Your task to perform on an android device: Open Google Maps and go to "Timeline" Image 0: 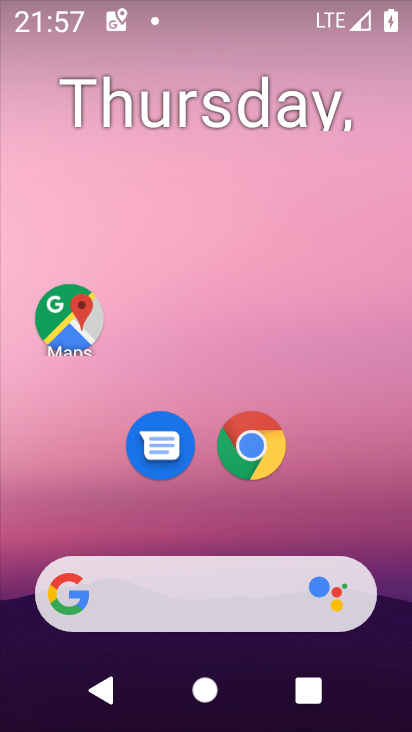
Step 0: drag from (193, 500) to (226, 161)
Your task to perform on an android device: Open Google Maps and go to "Timeline" Image 1: 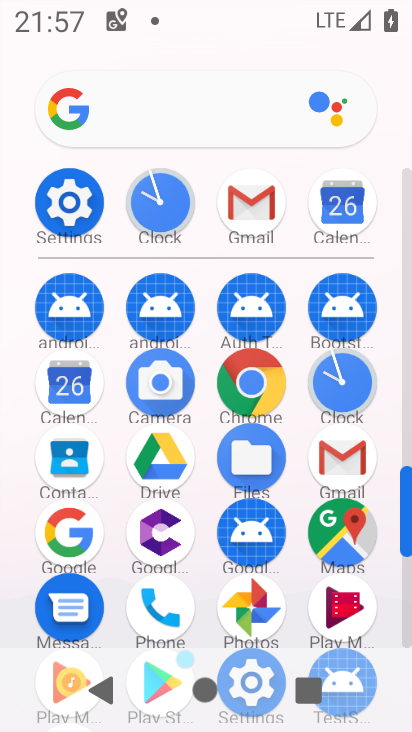
Step 1: drag from (205, 275) to (219, 78)
Your task to perform on an android device: Open Google Maps and go to "Timeline" Image 2: 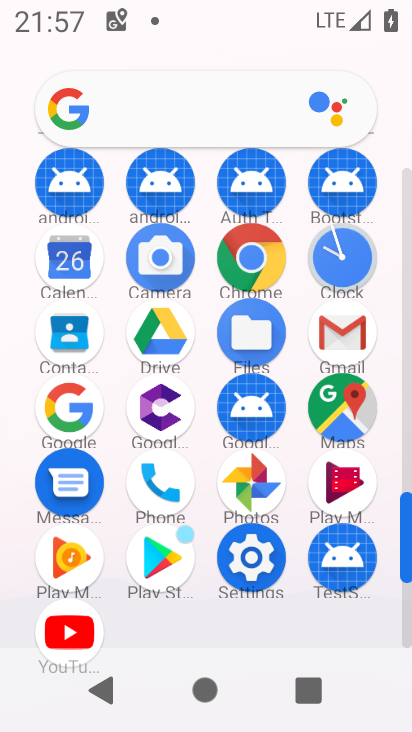
Step 2: click (339, 401)
Your task to perform on an android device: Open Google Maps and go to "Timeline" Image 3: 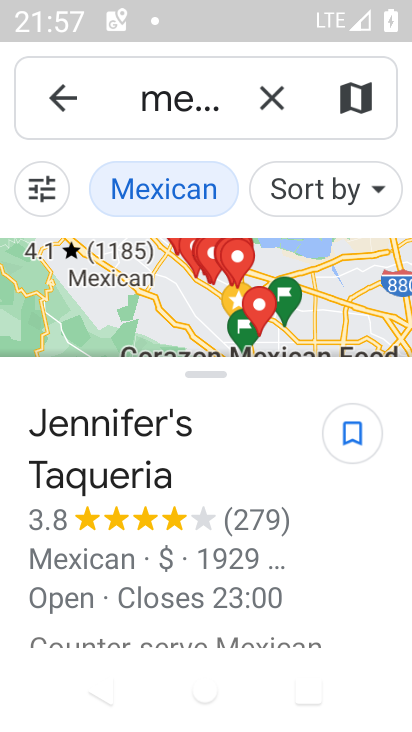
Step 3: press back button
Your task to perform on an android device: Open Google Maps and go to "Timeline" Image 4: 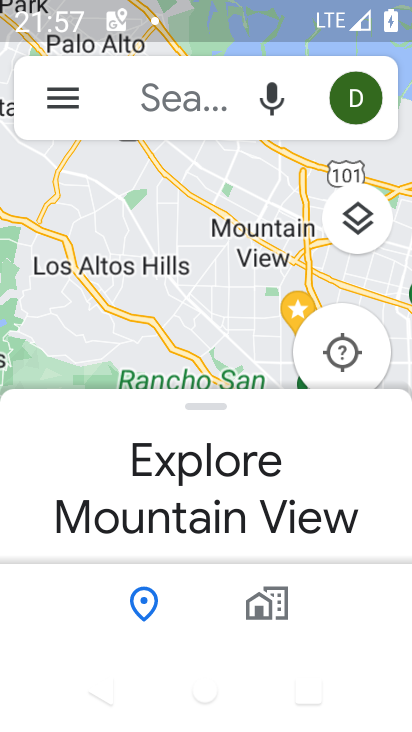
Step 4: click (38, 108)
Your task to perform on an android device: Open Google Maps and go to "Timeline" Image 5: 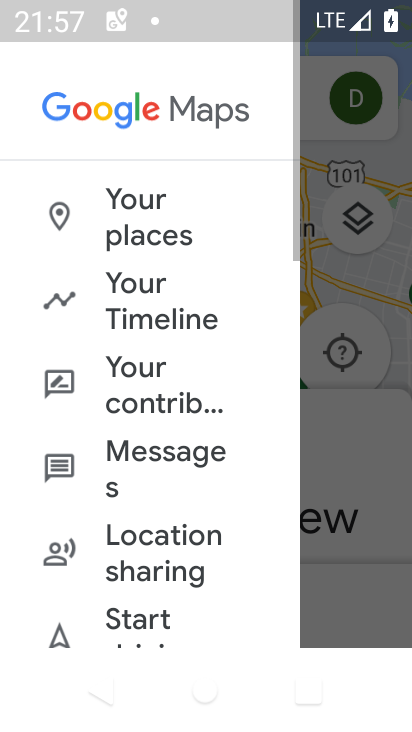
Step 5: drag from (132, 457) to (164, 489)
Your task to perform on an android device: Open Google Maps and go to "Timeline" Image 6: 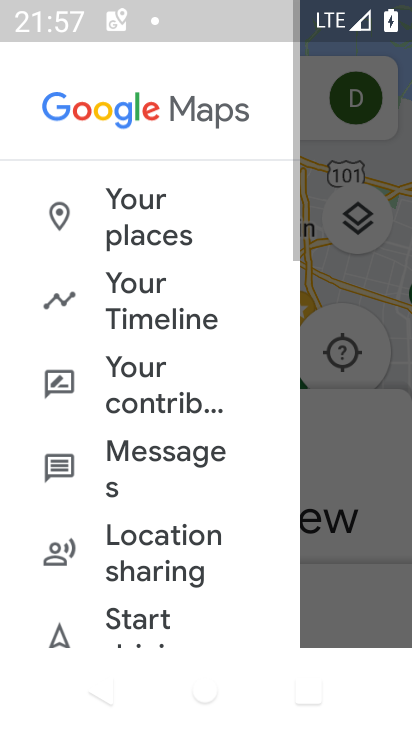
Step 6: click (149, 314)
Your task to perform on an android device: Open Google Maps and go to "Timeline" Image 7: 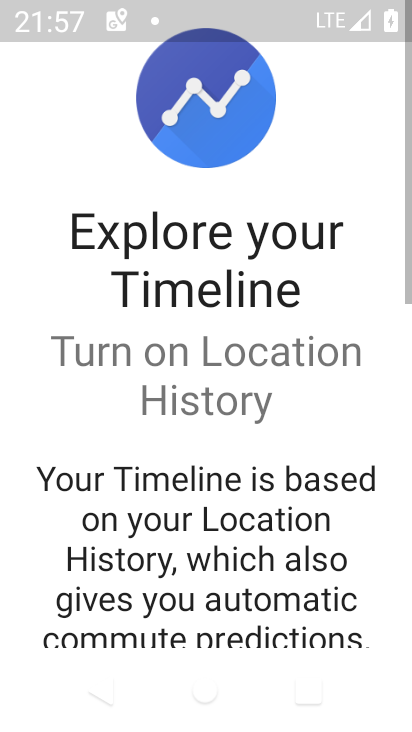
Step 7: drag from (203, 601) to (272, 160)
Your task to perform on an android device: Open Google Maps and go to "Timeline" Image 8: 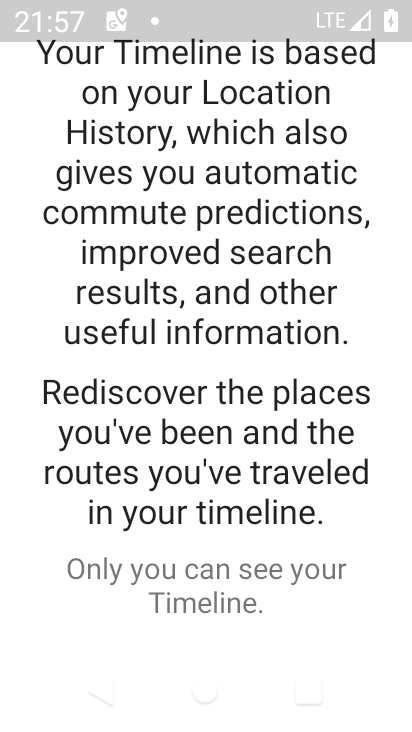
Step 8: drag from (254, 564) to (272, 125)
Your task to perform on an android device: Open Google Maps and go to "Timeline" Image 9: 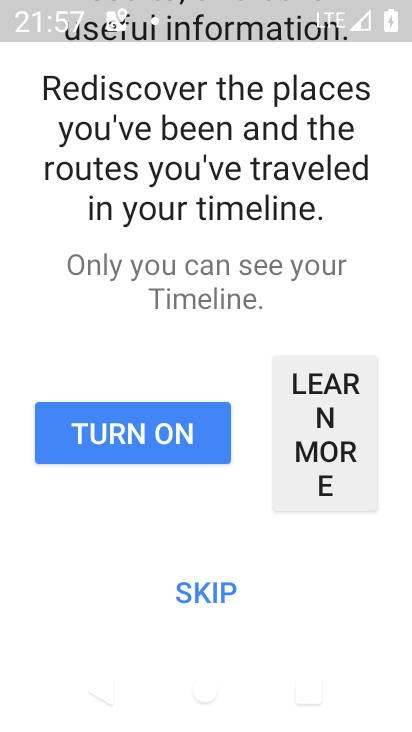
Step 9: click (214, 588)
Your task to perform on an android device: Open Google Maps and go to "Timeline" Image 10: 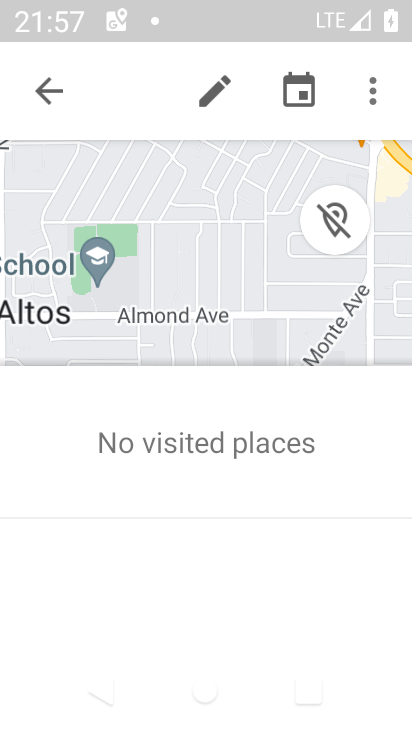
Step 10: task complete